Your task to perform on an android device: View the shopping cart on target.com. Search for lenovo thinkpad on target.com, select the first entry, add it to the cart, then select checkout. Image 0: 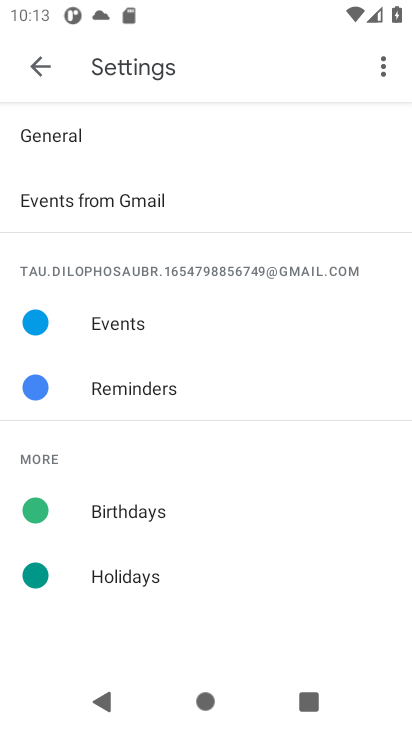
Step 0: press home button
Your task to perform on an android device: View the shopping cart on target.com. Search for lenovo thinkpad on target.com, select the first entry, add it to the cart, then select checkout. Image 1: 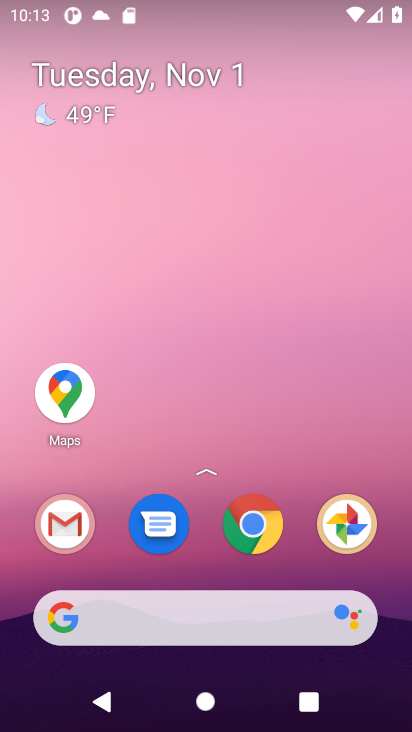
Step 1: click (89, 615)
Your task to perform on an android device: View the shopping cart on target.com. Search for lenovo thinkpad on target.com, select the first entry, add it to the cart, then select checkout. Image 2: 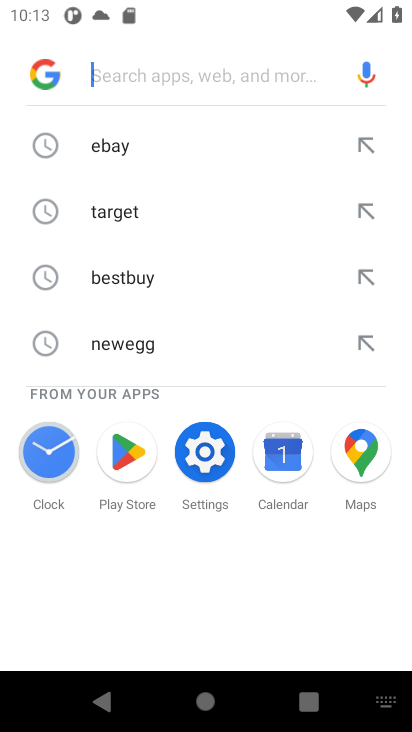
Step 2: click (132, 211)
Your task to perform on an android device: View the shopping cart on target.com. Search for lenovo thinkpad on target.com, select the first entry, add it to the cart, then select checkout. Image 3: 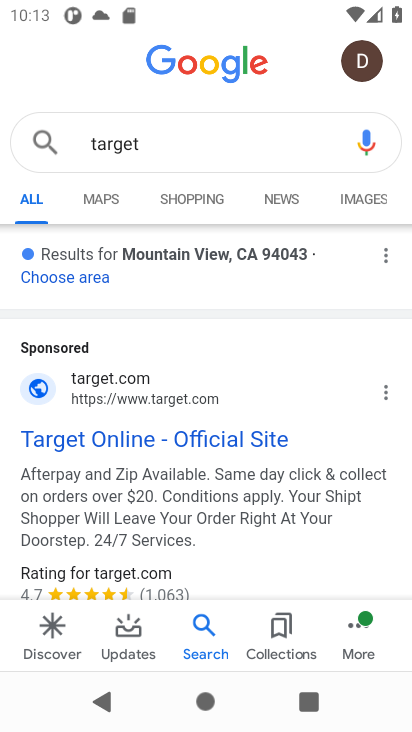
Step 3: click (160, 436)
Your task to perform on an android device: View the shopping cart on target.com. Search for lenovo thinkpad on target.com, select the first entry, add it to the cart, then select checkout. Image 4: 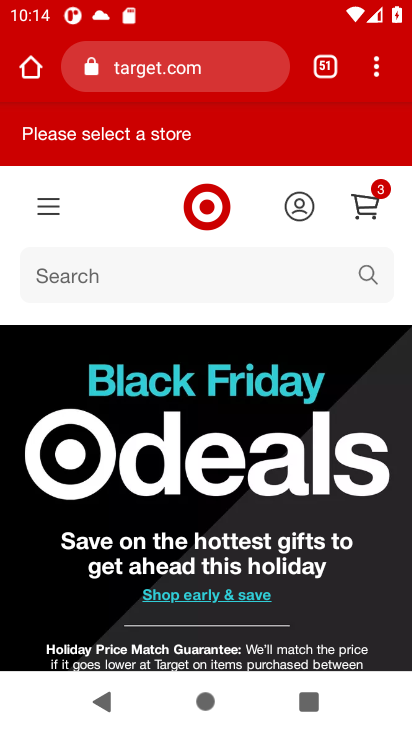
Step 4: click (367, 200)
Your task to perform on an android device: View the shopping cart on target.com. Search for lenovo thinkpad on target.com, select the first entry, add it to the cart, then select checkout. Image 5: 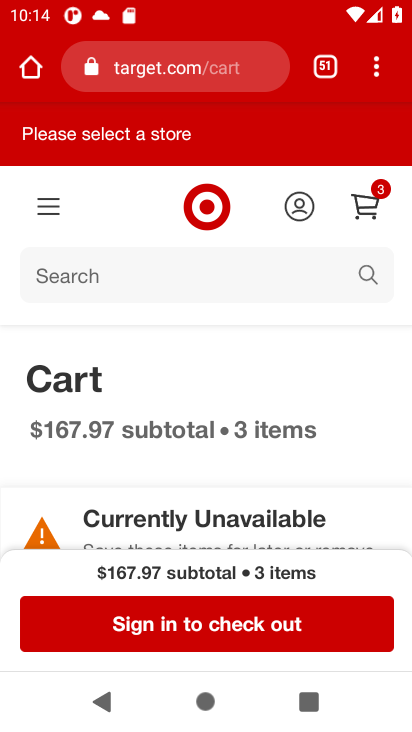
Step 5: drag from (156, 508) to (191, 275)
Your task to perform on an android device: View the shopping cart on target.com. Search for lenovo thinkpad on target.com, select the first entry, add it to the cart, then select checkout. Image 6: 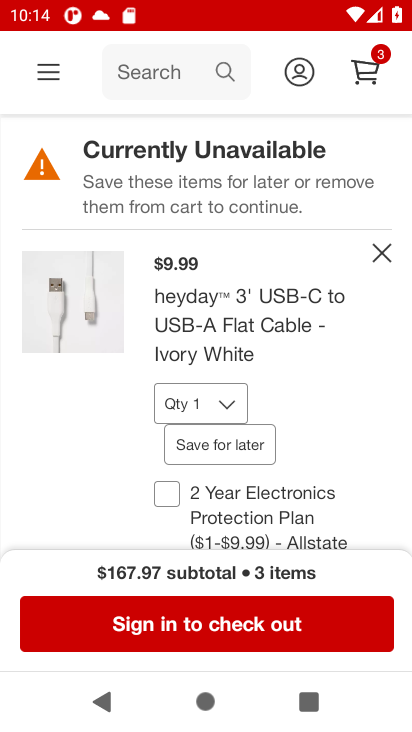
Step 6: click (225, 65)
Your task to perform on an android device: View the shopping cart on target.com. Search for lenovo thinkpad on target.com, select the first entry, add it to the cart, then select checkout. Image 7: 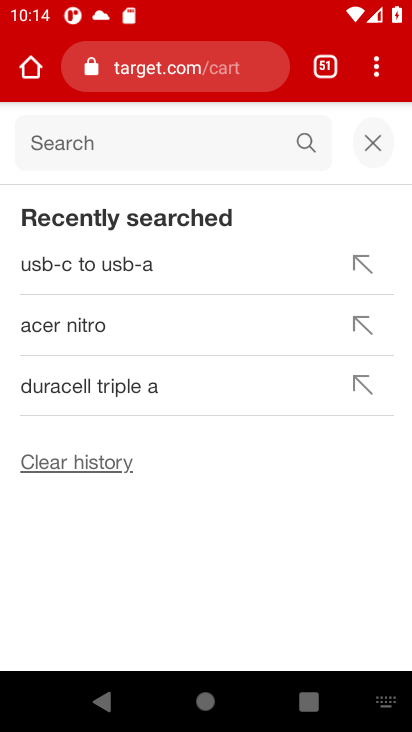
Step 7: type "lenovo thinkpad "
Your task to perform on an android device: View the shopping cart on target.com. Search for lenovo thinkpad on target.com, select the first entry, add it to the cart, then select checkout. Image 8: 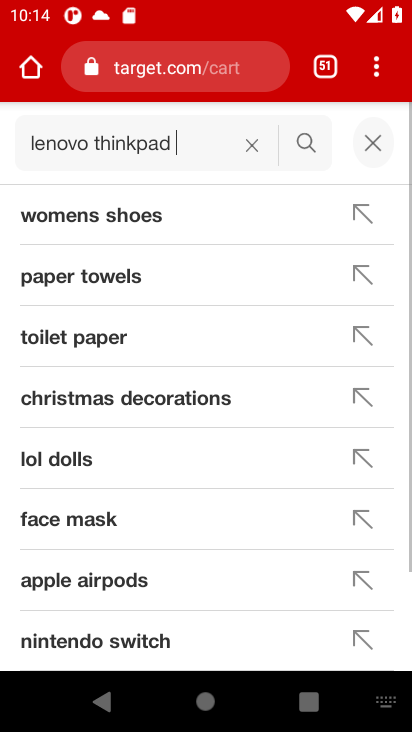
Step 8: press enter
Your task to perform on an android device: View the shopping cart on target.com. Search for lenovo thinkpad on target.com, select the first entry, add it to the cart, then select checkout. Image 9: 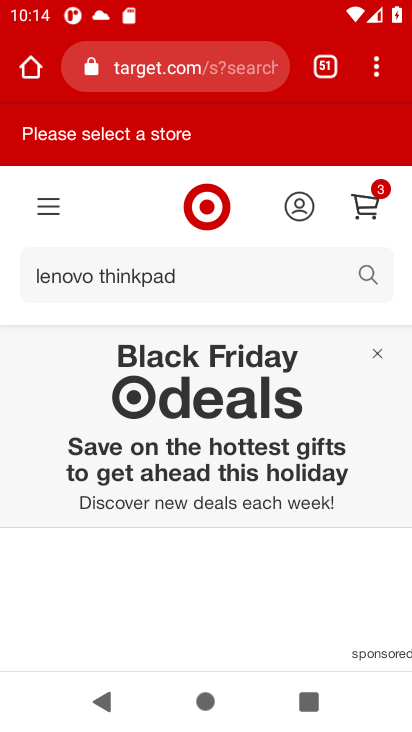
Step 9: drag from (236, 587) to (233, 268)
Your task to perform on an android device: View the shopping cart on target.com. Search for lenovo thinkpad on target.com, select the first entry, add it to the cart, then select checkout. Image 10: 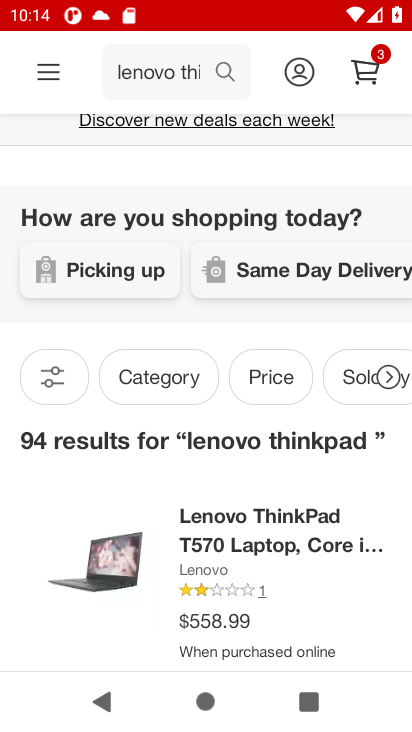
Step 10: drag from (223, 591) to (228, 324)
Your task to perform on an android device: View the shopping cart on target.com. Search for lenovo thinkpad on target.com, select the first entry, add it to the cart, then select checkout. Image 11: 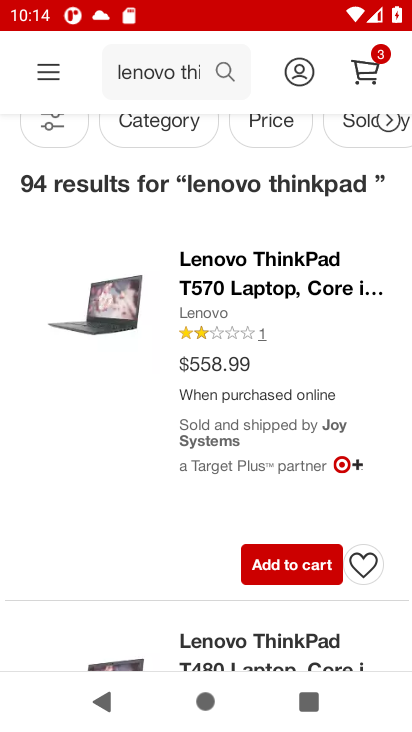
Step 11: drag from (187, 524) to (181, 276)
Your task to perform on an android device: View the shopping cart on target.com. Search for lenovo thinkpad on target.com, select the first entry, add it to the cart, then select checkout. Image 12: 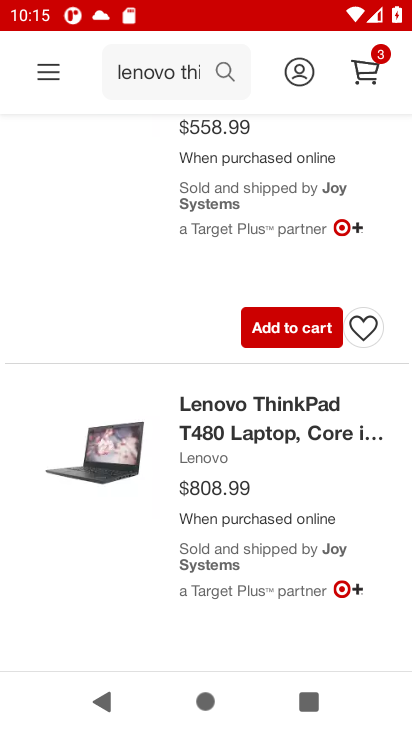
Step 12: drag from (211, 542) to (218, 338)
Your task to perform on an android device: View the shopping cart on target.com. Search for lenovo thinkpad on target.com, select the first entry, add it to the cart, then select checkout. Image 13: 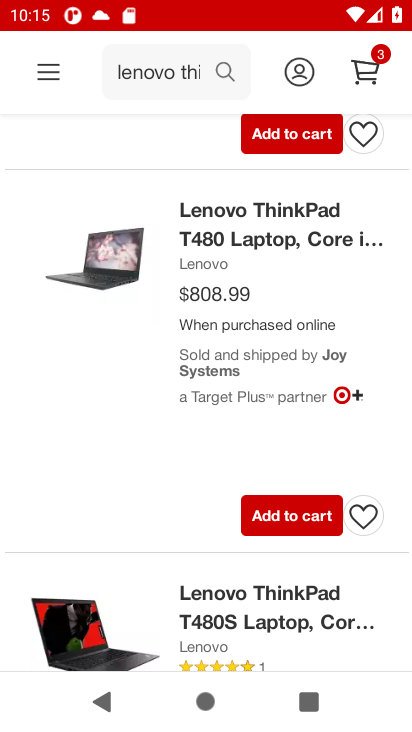
Step 13: drag from (203, 201) to (197, 558)
Your task to perform on an android device: View the shopping cart on target.com. Search for lenovo thinkpad on target.com, select the first entry, add it to the cart, then select checkout. Image 14: 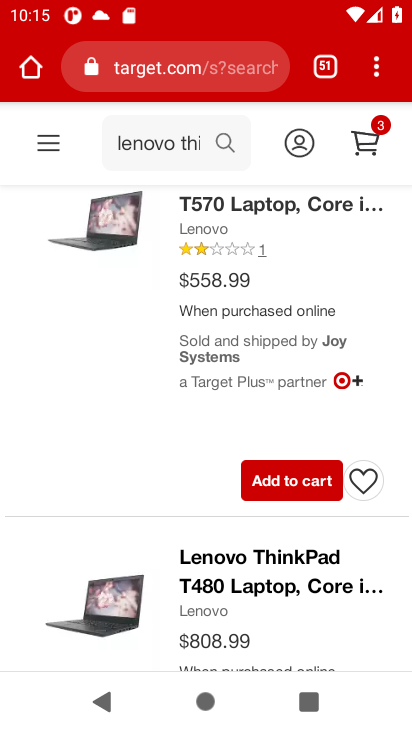
Step 14: drag from (218, 226) to (210, 533)
Your task to perform on an android device: View the shopping cart on target.com. Search for lenovo thinkpad on target.com, select the first entry, add it to the cart, then select checkout. Image 15: 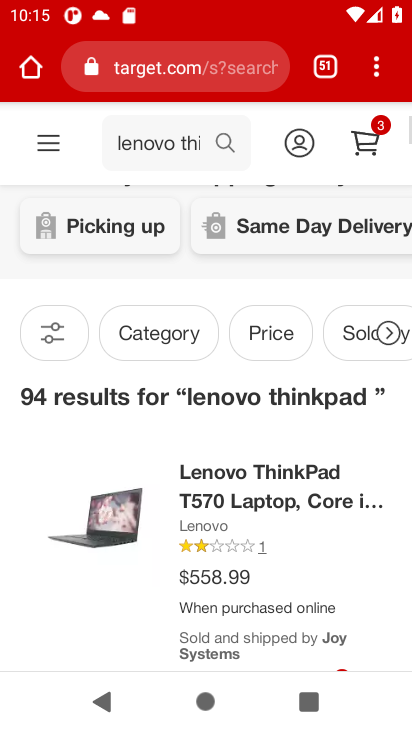
Step 15: drag from (221, 546) to (216, 203)
Your task to perform on an android device: View the shopping cart on target.com. Search for lenovo thinkpad on target.com, select the first entry, add it to the cart, then select checkout. Image 16: 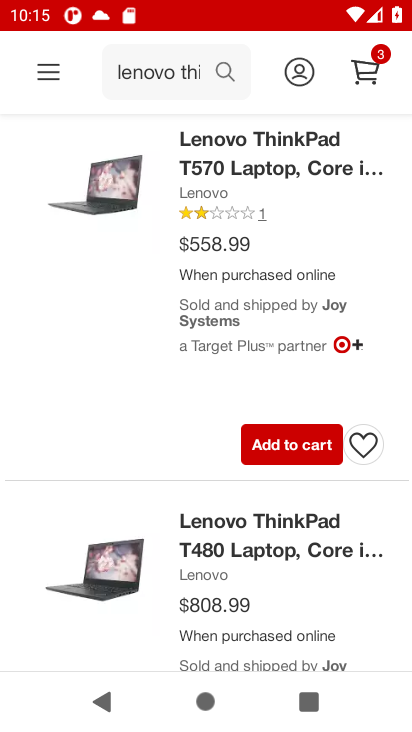
Step 16: click (282, 440)
Your task to perform on an android device: View the shopping cart on target.com. Search for lenovo thinkpad on target.com, select the first entry, add it to the cart, then select checkout. Image 17: 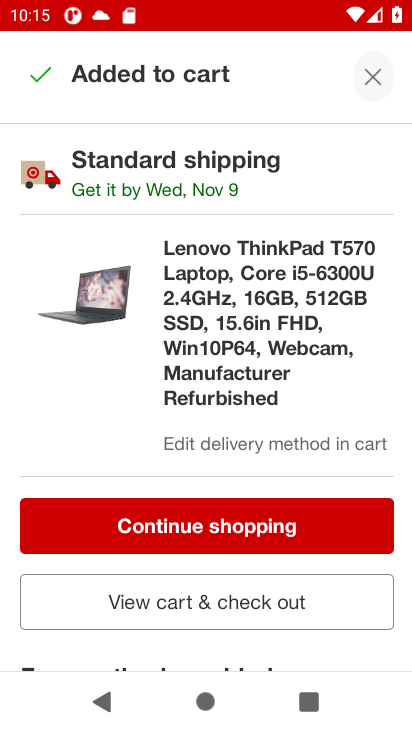
Step 17: click (192, 609)
Your task to perform on an android device: View the shopping cart on target.com. Search for lenovo thinkpad on target.com, select the first entry, add it to the cart, then select checkout. Image 18: 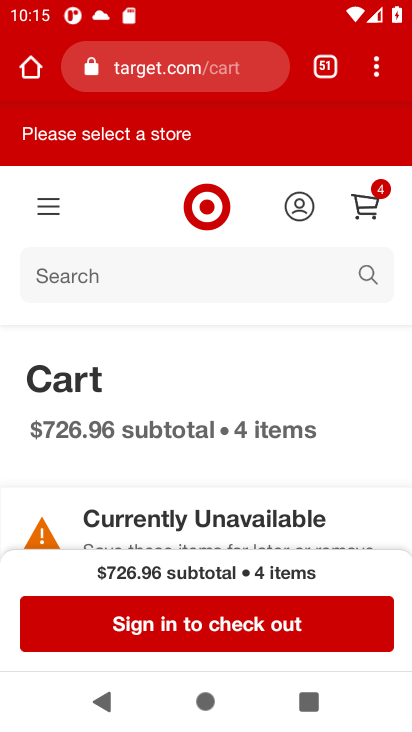
Step 18: click (258, 637)
Your task to perform on an android device: View the shopping cart on target.com. Search for lenovo thinkpad on target.com, select the first entry, add it to the cart, then select checkout. Image 19: 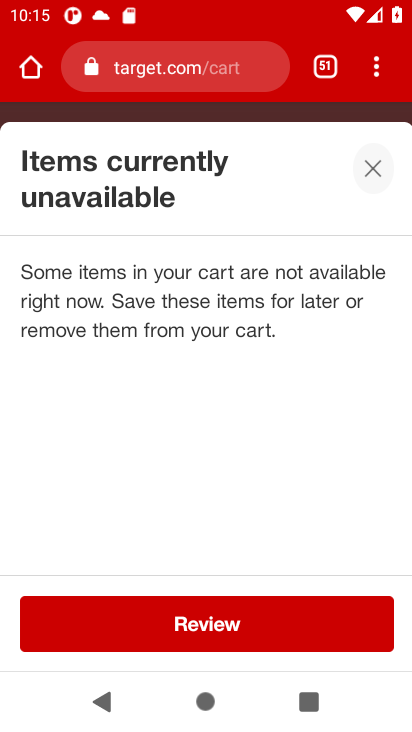
Step 19: task complete